Your task to perform on an android device: change the clock display to show seconds Image 0: 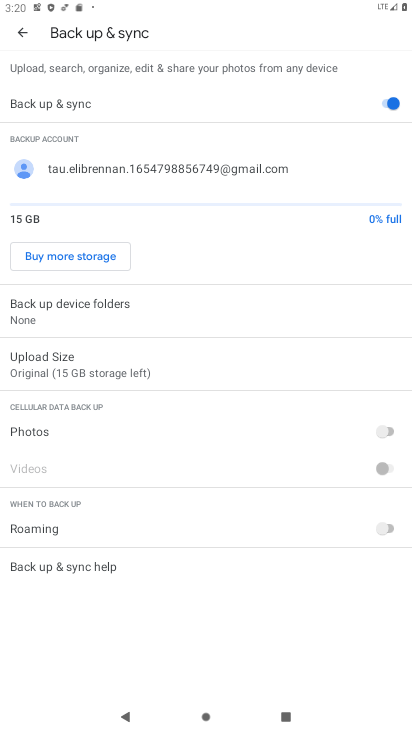
Step 0: press home button
Your task to perform on an android device: change the clock display to show seconds Image 1: 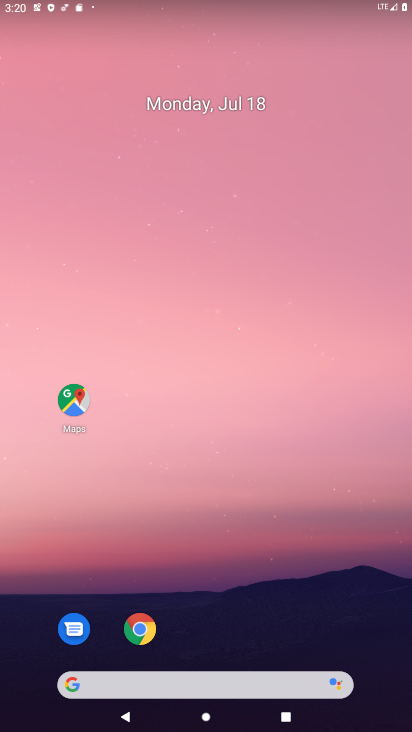
Step 1: drag from (193, 594) to (195, 327)
Your task to perform on an android device: change the clock display to show seconds Image 2: 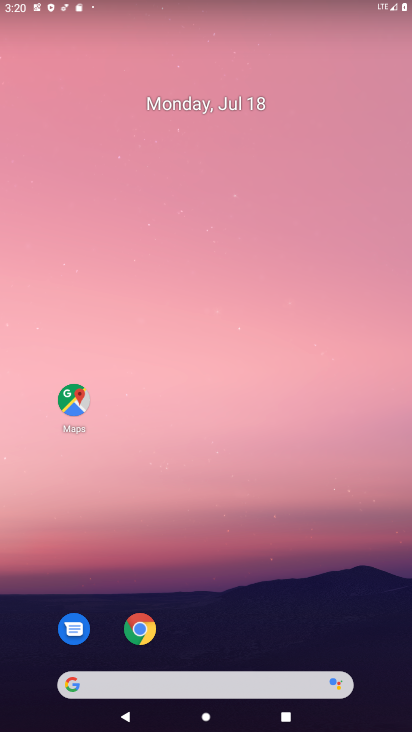
Step 2: drag from (232, 650) to (250, 38)
Your task to perform on an android device: change the clock display to show seconds Image 3: 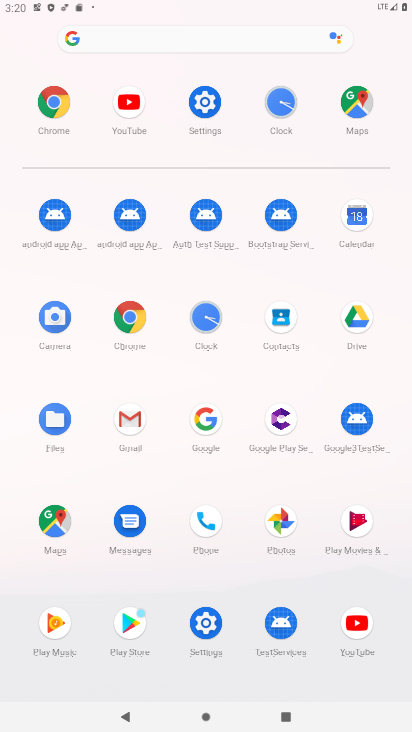
Step 3: click (213, 322)
Your task to perform on an android device: change the clock display to show seconds Image 4: 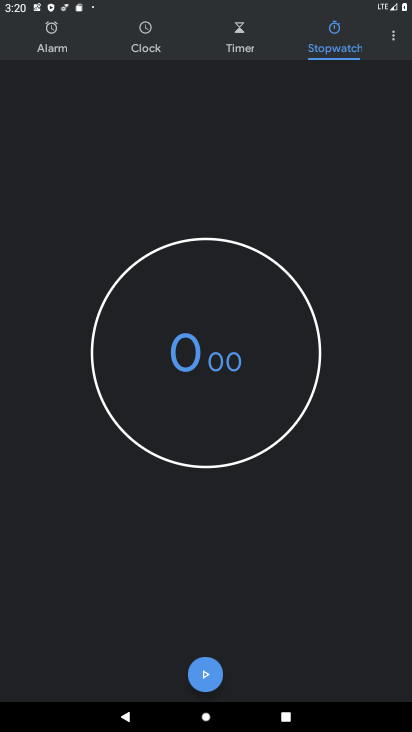
Step 4: click (397, 43)
Your task to perform on an android device: change the clock display to show seconds Image 5: 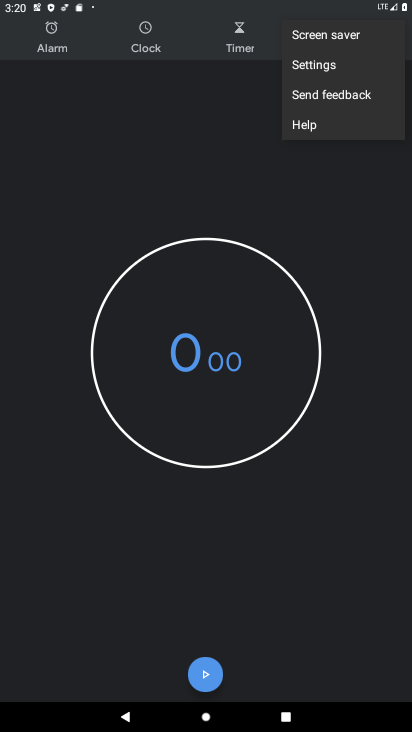
Step 5: click (323, 67)
Your task to perform on an android device: change the clock display to show seconds Image 6: 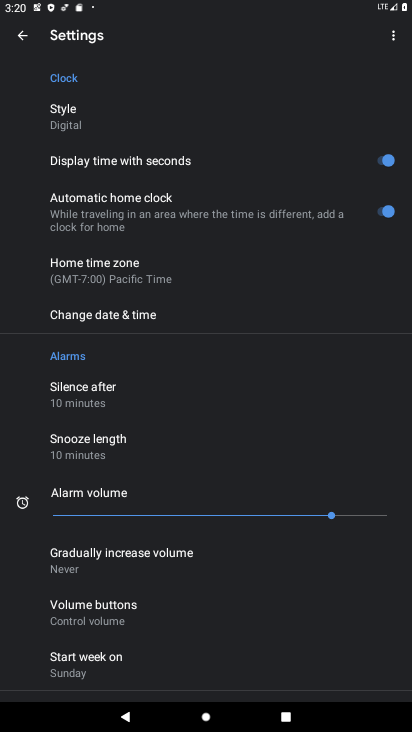
Step 6: click (103, 122)
Your task to perform on an android device: change the clock display to show seconds Image 7: 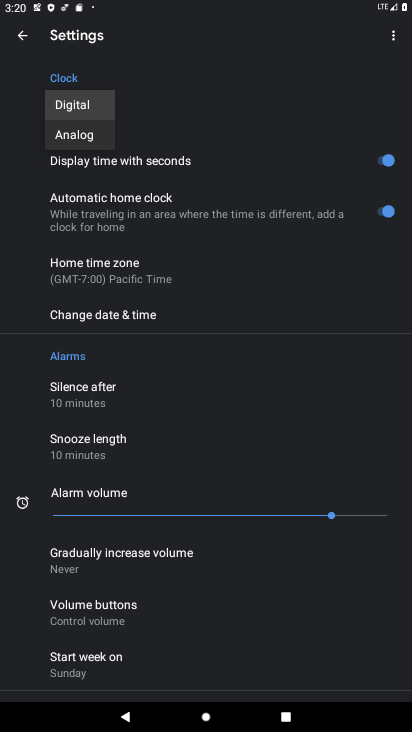
Step 7: task complete